Your task to perform on an android device: search for starred emails in the gmail app Image 0: 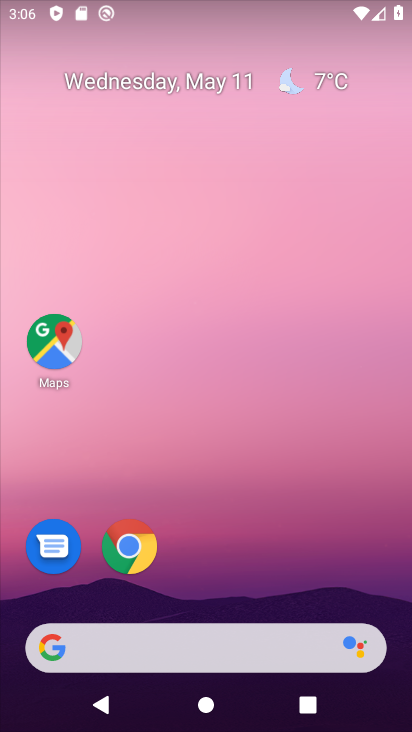
Step 0: drag from (204, 612) to (251, 48)
Your task to perform on an android device: search for starred emails in the gmail app Image 1: 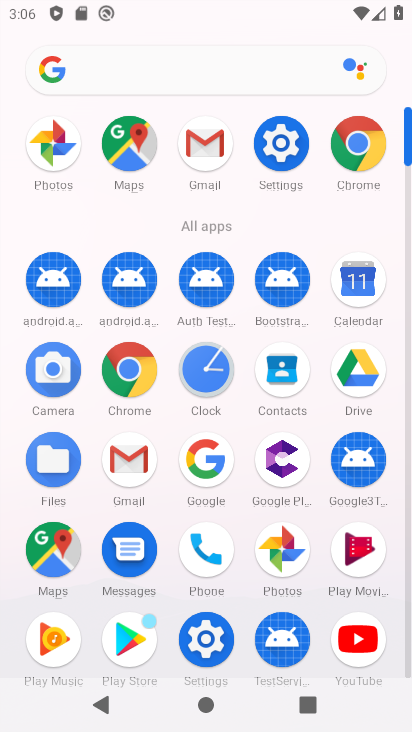
Step 1: click (134, 468)
Your task to perform on an android device: search for starred emails in the gmail app Image 2: 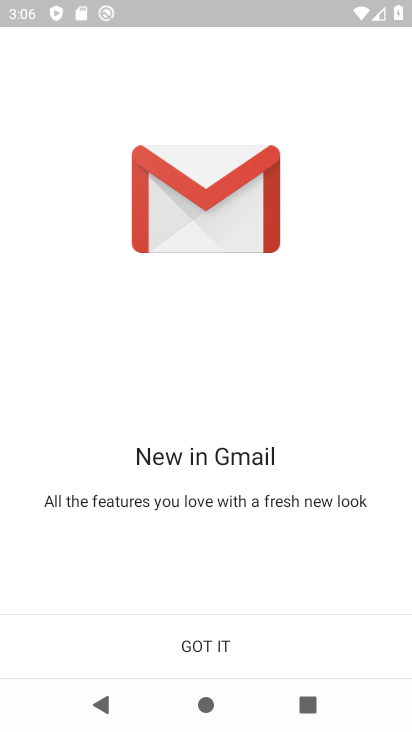
Step 2: click (113, 662)
Your task to perform on an android device: search for starred emails in the gmail app Image 3: 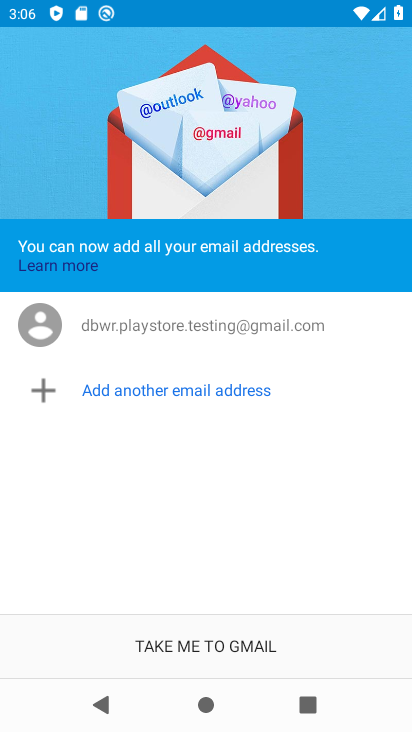
Step 3: click (219, 624)
Your task to perform on an android device: search for starred emails in the gmail app Image 4: 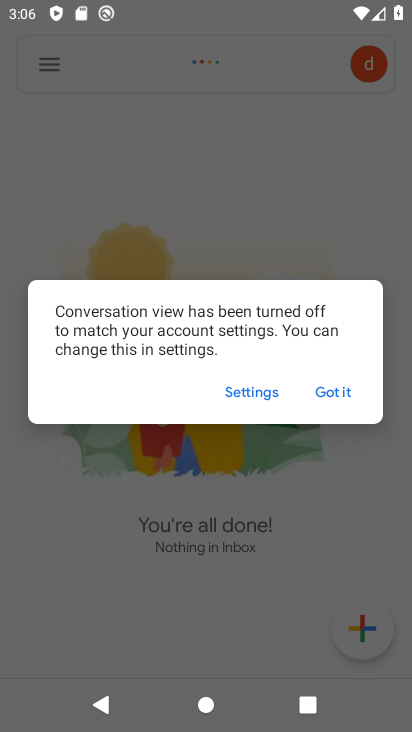
Step 4: click (331, 387)
Your task to perform on an android device: search for starred emails in the gmail app Image 5: 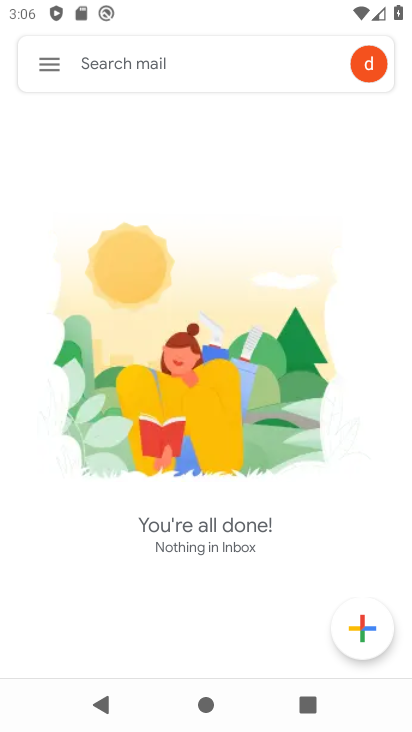
Step 5: click (55, 58)
Your task to perform on an android device: search for starred emails in the gmail app Image 6: 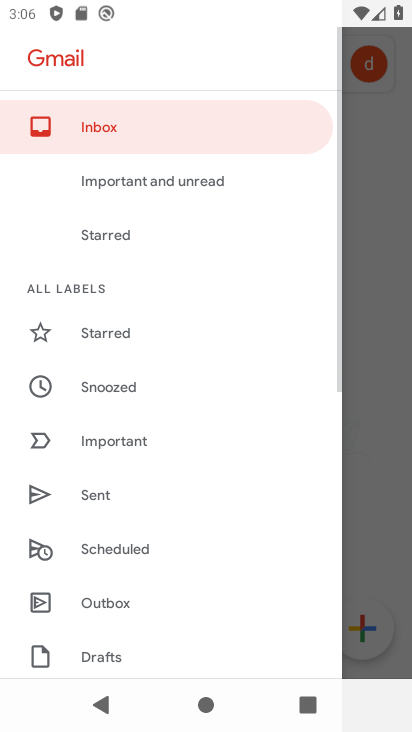
Step 6: click (139, 333)
Your task to perform on an android device: search for starred emails in the gmail app Image 7: 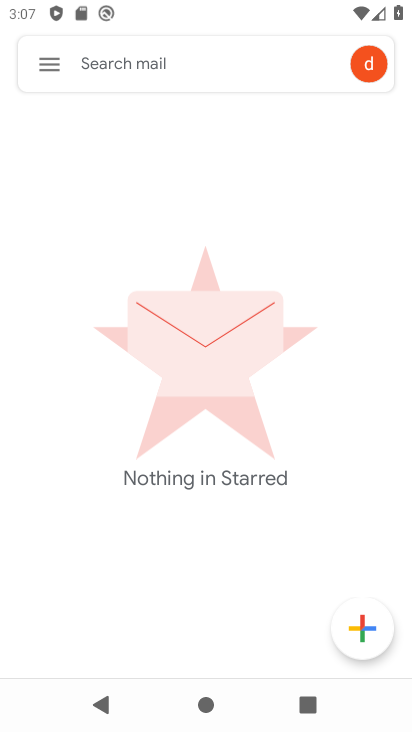
Step 7: task complete